Your task to perform on an android device: toggle sleep mode Image 0: 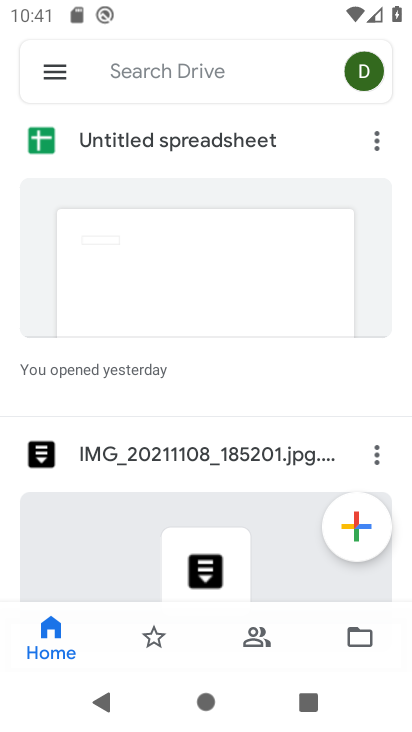
Step 0: press home button
Your task to perform on an android device: toggle sleep mode Image 1: 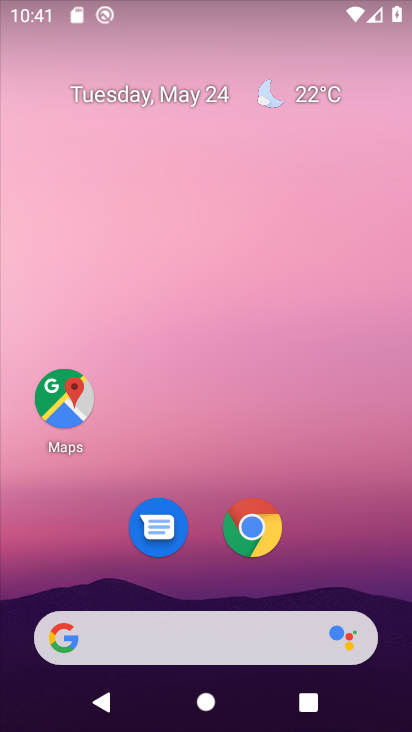
Step 1: drag from (173, 631) to (325, 99)
Your task to perform on an android device: toggle sleep mode Image 2: 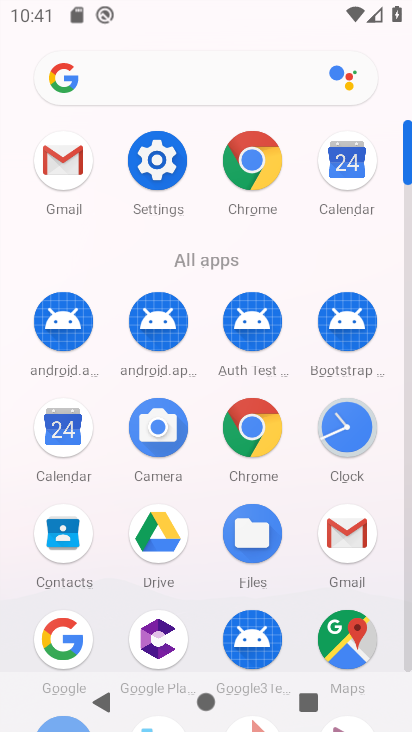
Step 2: click (149, 163)
Your task to perform on an android device: toggle sleep mode Image 3: 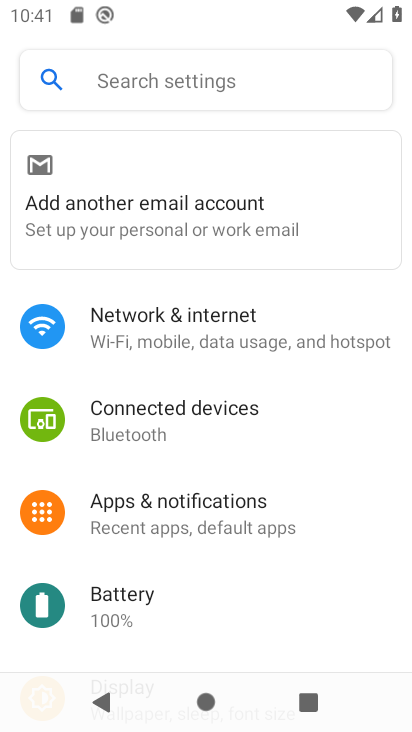
Step 3: drag from (223, 599) to (310, 388)
Your task to perform on an android device: toggle sleep mode Image 4: 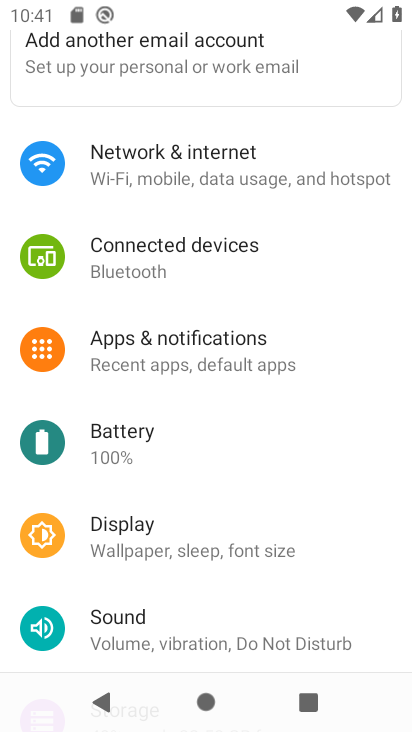
Step 4: click (208, 548)
Your task to perform on an android device: toggle sleep mode Image 5: 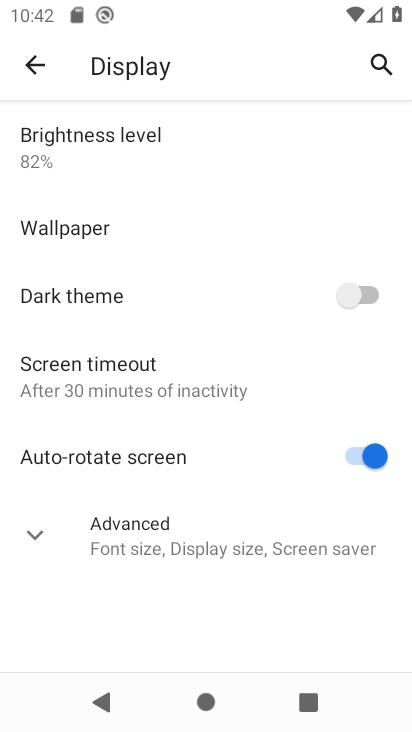
Step 5: task complete